Your task to perform on an android device: change timer sound Image 0: 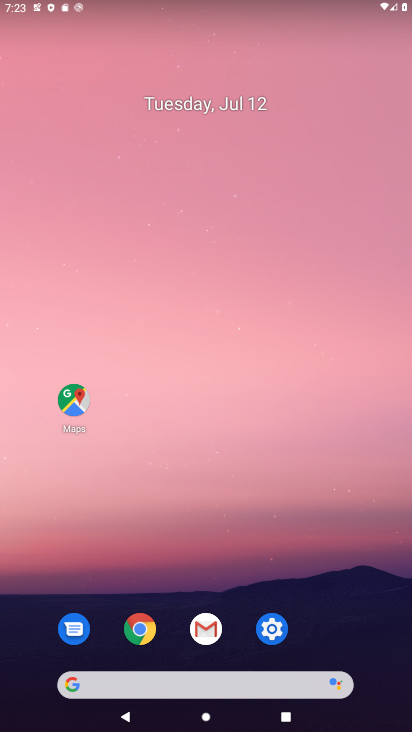
Step 0: click (277, 634)
Your task to perform on an android device: change timer sound Image 1: 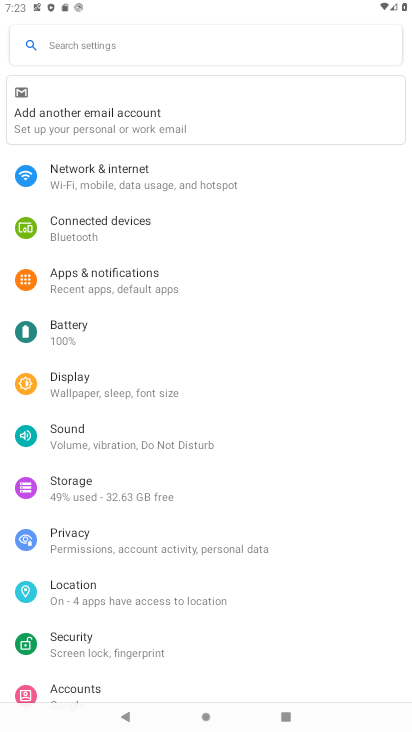
Step 1: click (99, 436)
Your task to perform on an android device: change timer sound Image 2: 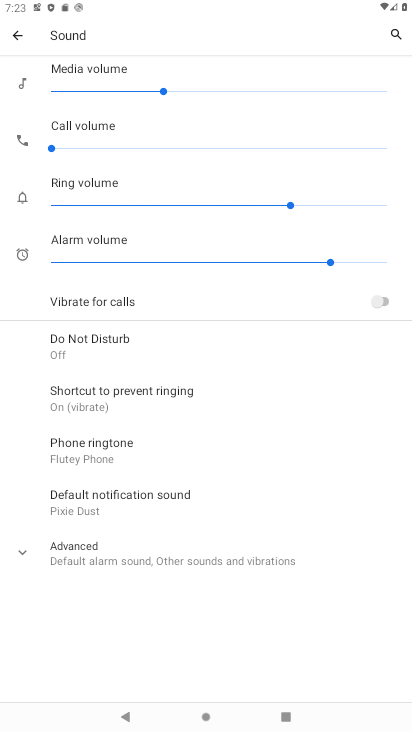
Step 2: task complete